Your task to perform on an android device: Play the last video I watched on Youtube Image 0: 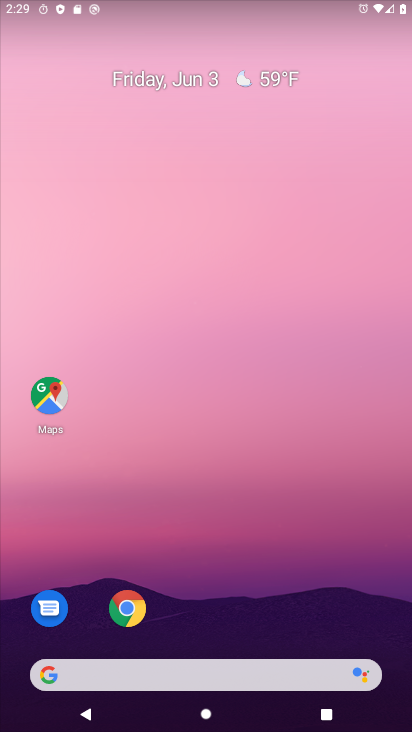
Step 0: drag from (237, 676) to (176, 181)
Your task to perform on an android device: Play the last video I watched on Youtube Image 1: 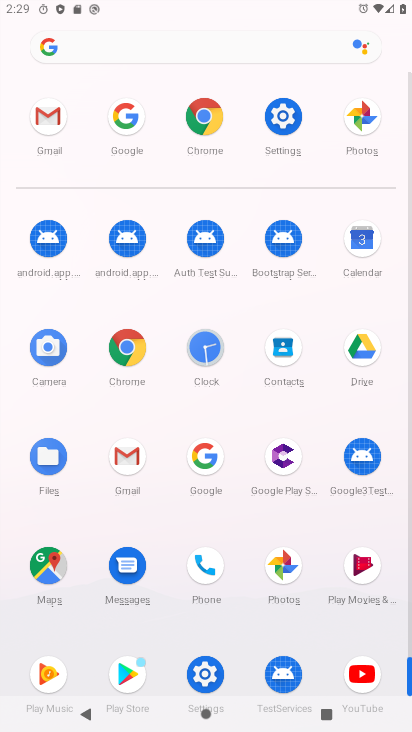
Step 1: click (367, 666)
Your task to perform on an android device: Play the last video I watched on Youtube Image 2: 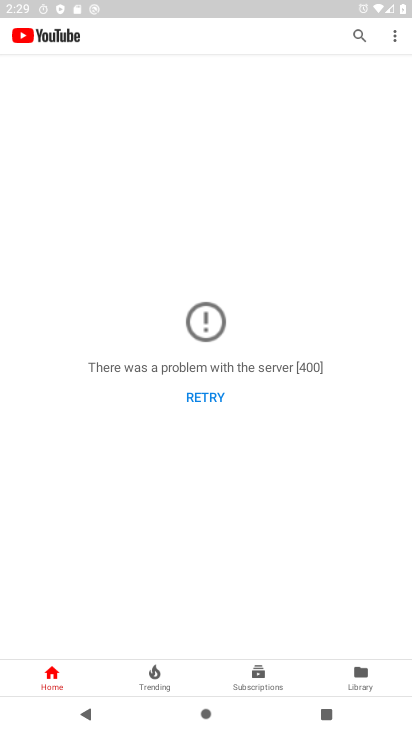
Step 2: task complete